Your task to perform on an android device: turn off picture-in-picture Image 0: 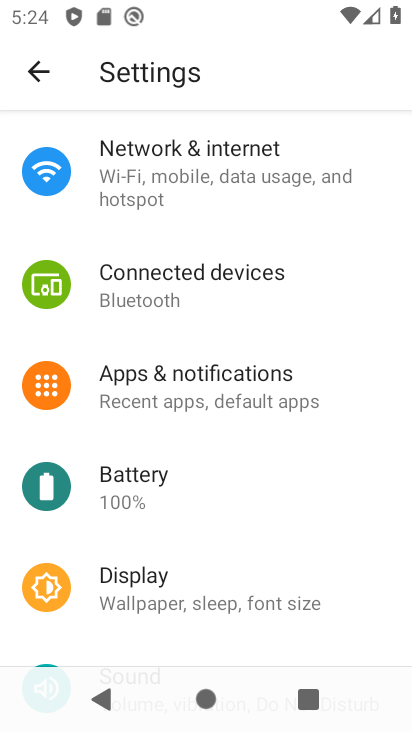
Step 0: press home button
Your task to perform on an android device: turn off picture-in-picture Image 1: 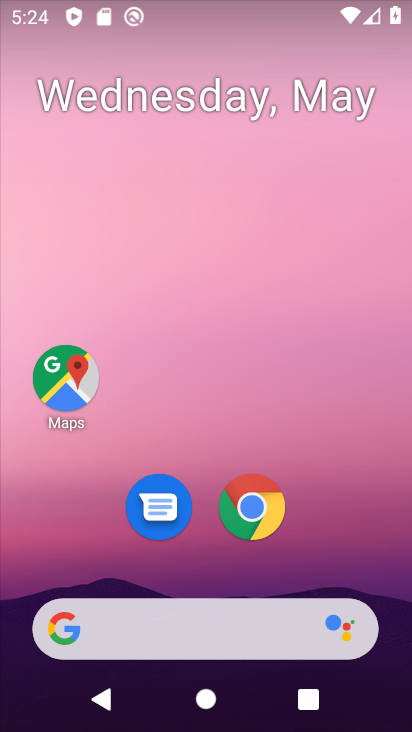
Step 1: click (251, 504)
Your task to perform on an android device: turn off picture-in-picture Image 2: 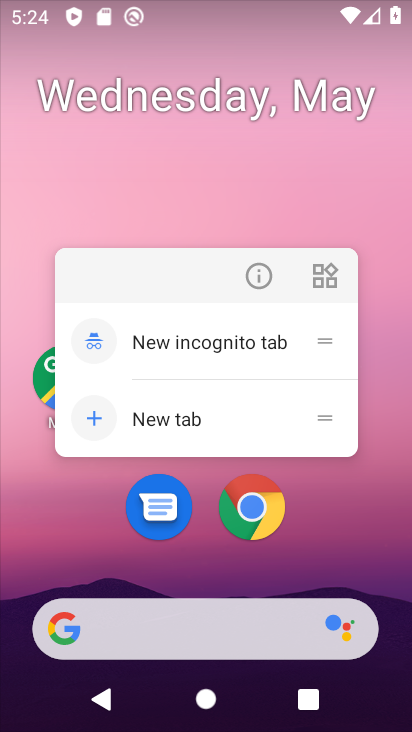
Step 2: click (257, 277)
Your task to perform on an android device: turn off picture-in-picture Image 3: 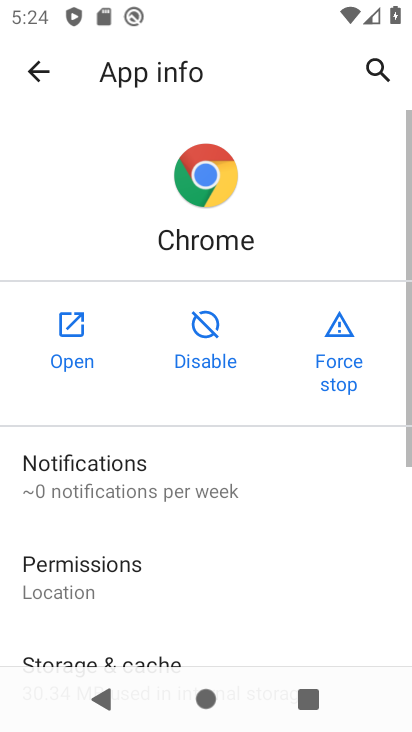
Step 3: drag from (186, 544) to (133, 333)
Your task to perform on an android device: turn off picture-in-picture Image 4: 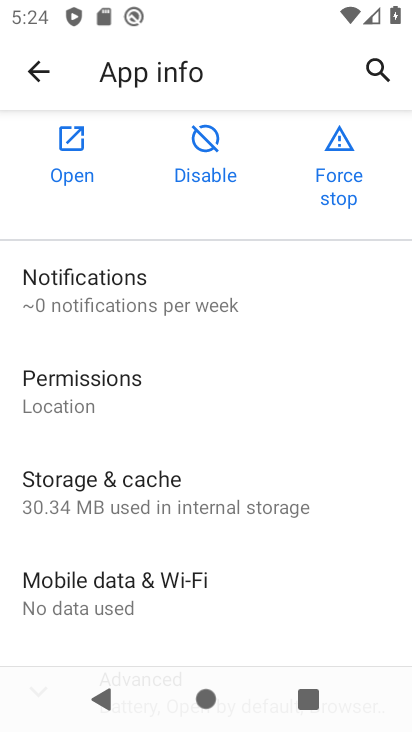
Step 4: drag from (195, 542) to (159, 331)
Your task to perform on an android device: turn off picture-in-picture Image 5: 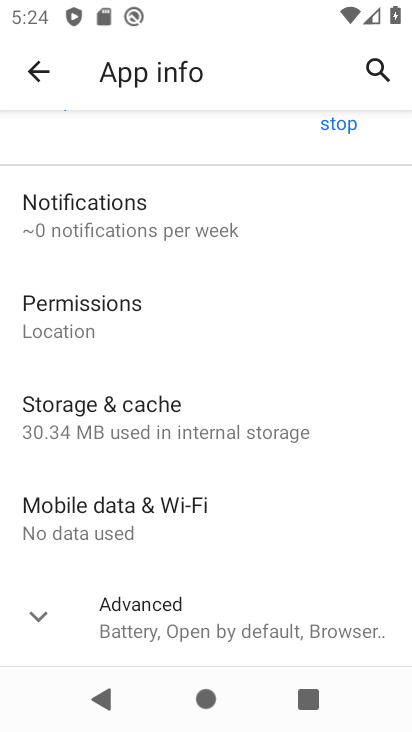
Step 5: click (214, 628)
Your task to perform on an android device: turn off picture-in-picture Image 6: 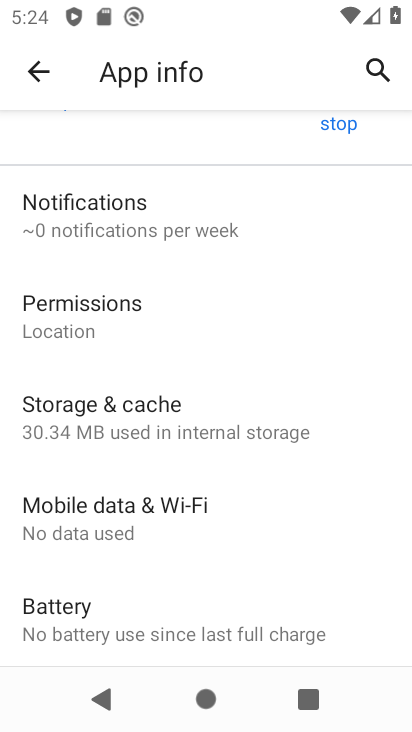
Step 6: drag from (218, 581) to (173, 350)
Your task to perform on an android device: turn off picture-in-picture Image 7: 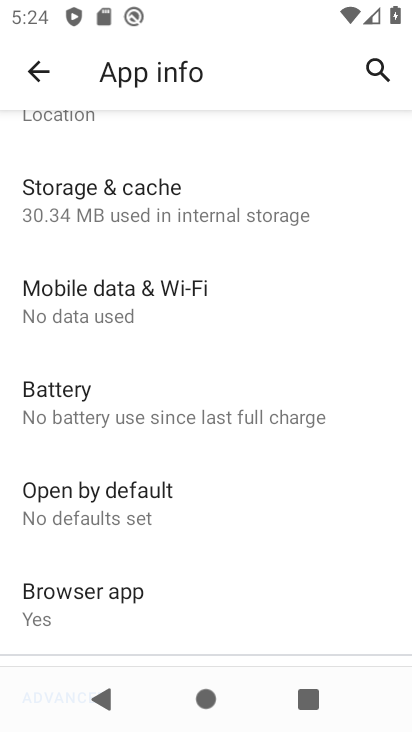
Step 7: drag from (264, 560) to (254, 394)
Your task to perform on an android device: turn off picture-in-picture Image 8: 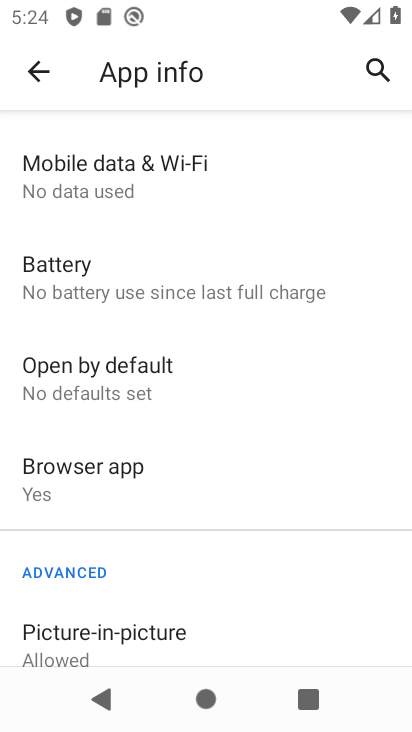
Step 8: drag from (236, 589) to (215, 435)
Your task to perform on an android device: turn off picture-in-picture Image 9: 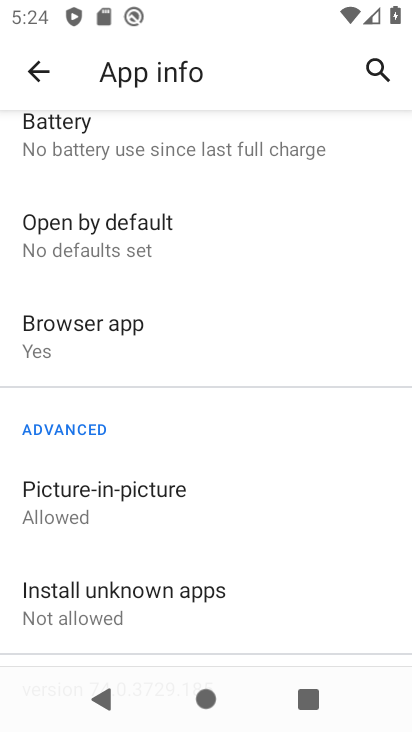
Step 9: click (146, 491)
Your task to perform on an android device: turn off picture-in-picture Image 10: 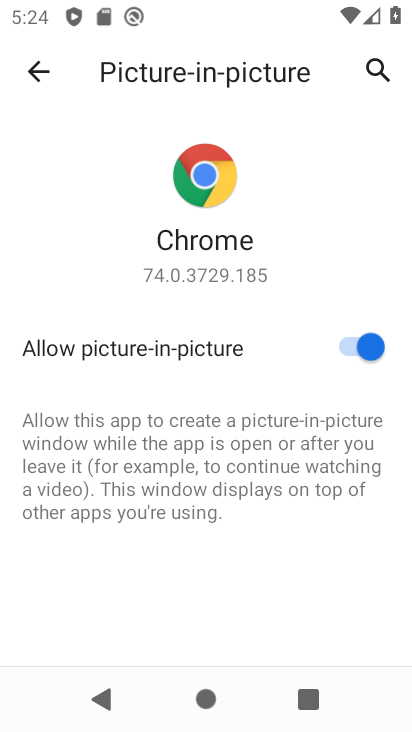
Step 10: click (345, 342)
Your task to perform on an android device: turn off picture-in-picture Image 11: 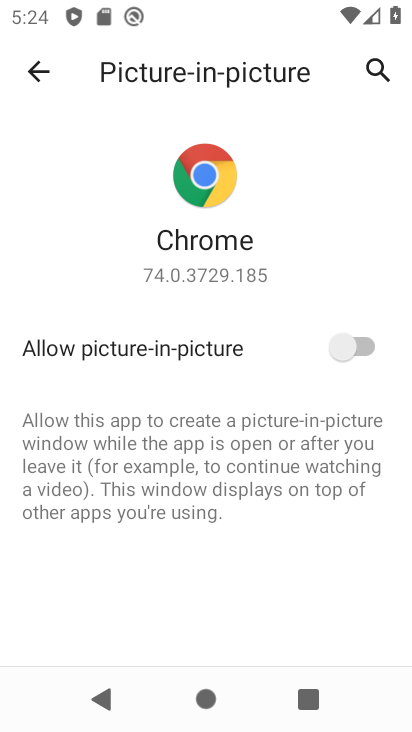
Step 11: task complete